Your task to perform on an android device: find photos in the google photos app Image 0: 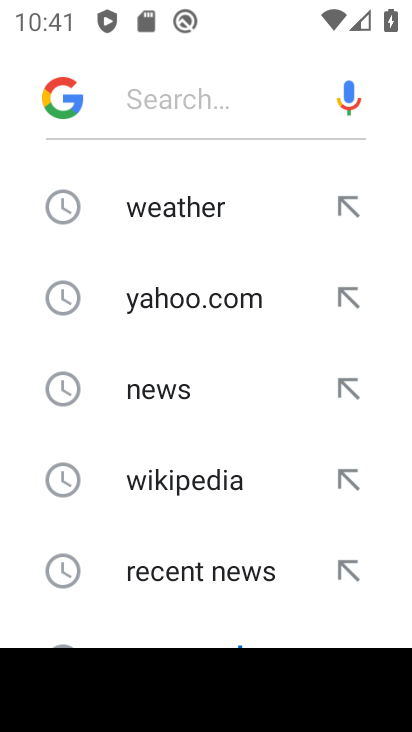
Step 0: press back button
Your task to perform on an android device: find photos in the google photos app Image 1: 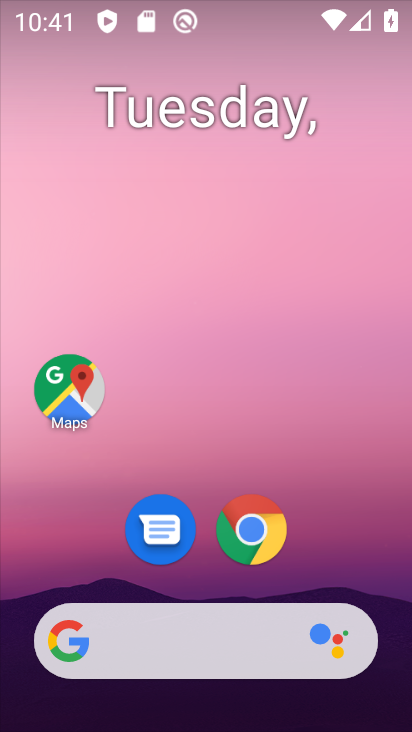
Step 1: click (180, 150)
Your task to perform on an android device: find photos in the google photos app Image 2: 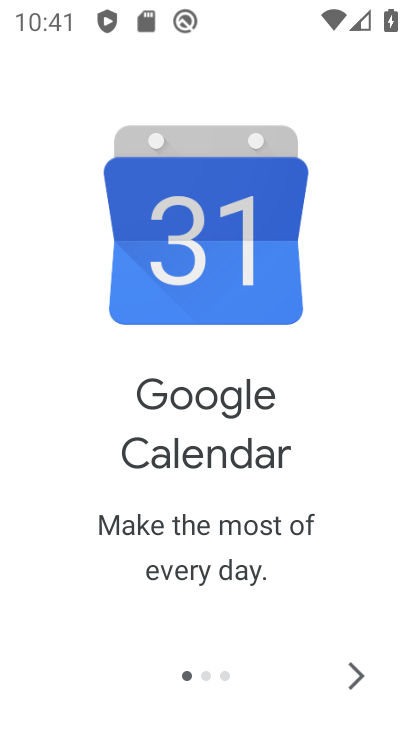
Step 2: press home button
Your task to perform on an android device: find photos in the google photos app Image 3: 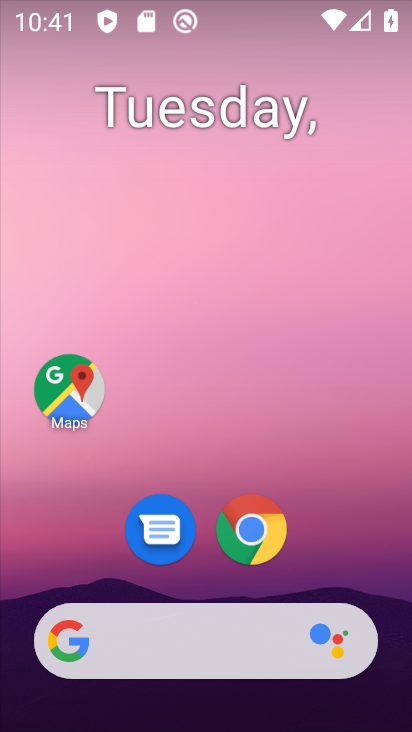
Step 3: drag from (48, 590) to (179, 7)
Your task to perform on an android device: find photos in the google photos app Image 4: 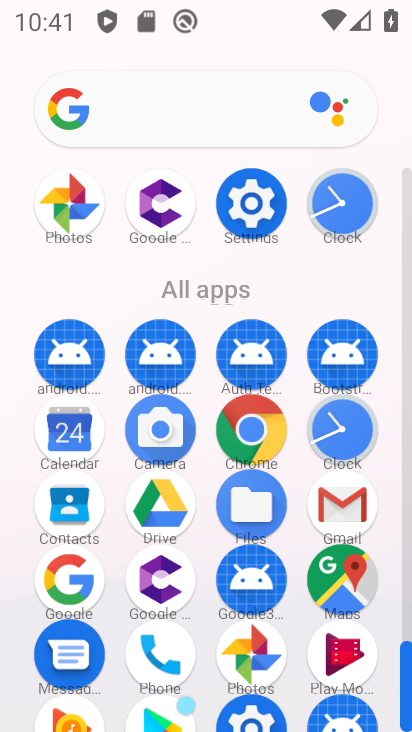
Step 4: drag from (178, 649) to (235, 357)
Your task to perform on an android device: find photos in the google photos app Image 5: 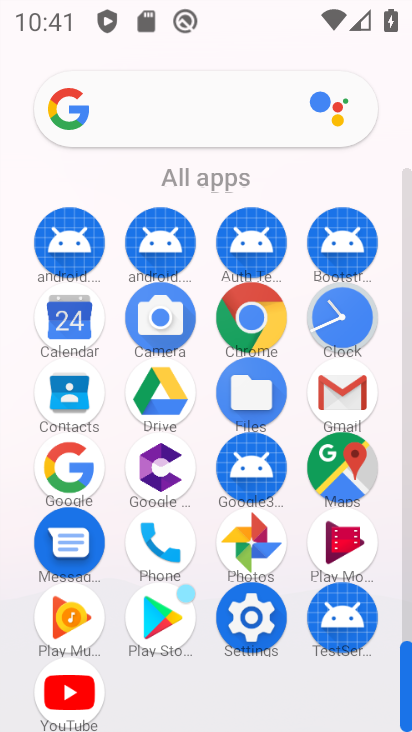
Step 5: click (236, 548)
Your task to perform on an android device: find photos in the google photos app Image 6: 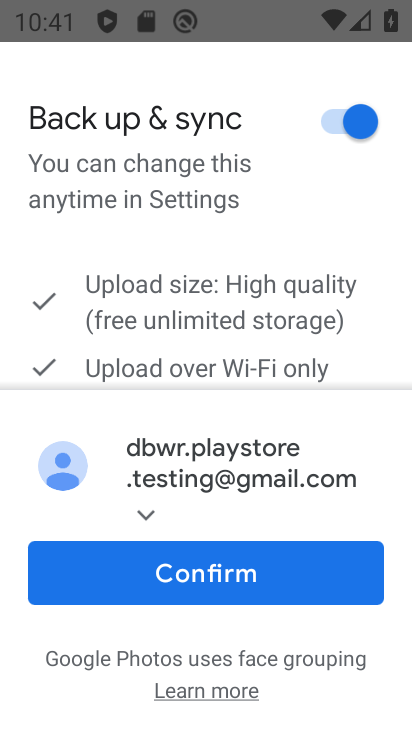
Step 6: task complete